Your task to perform on an android device: turn on location history Image 0: 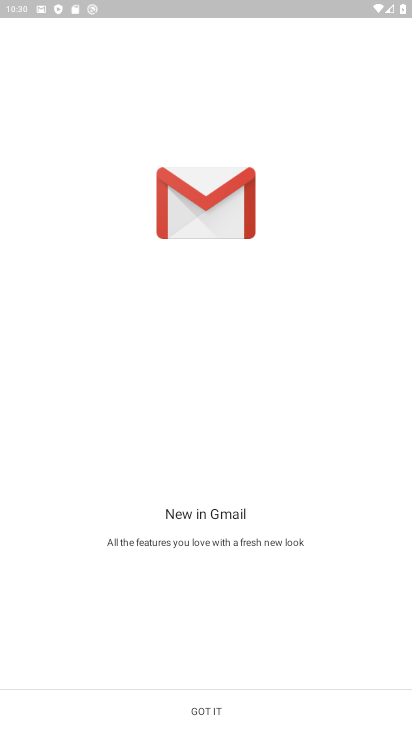
Step 0: press home button
Your task to perform on an android device: turn on location history Image 1: 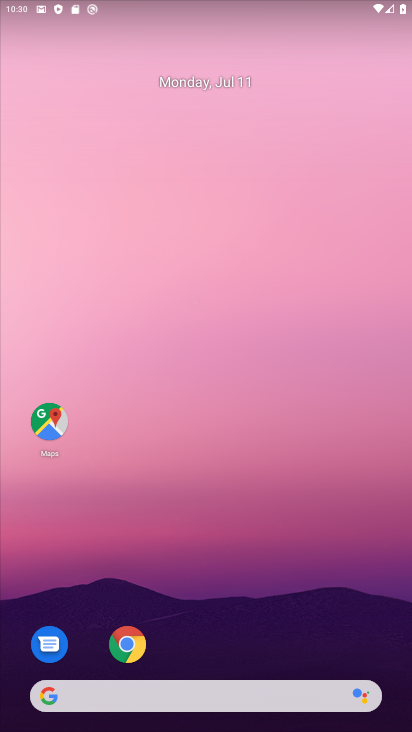
Step 1: drag from (303, 659) to (288, 44)
Your task to perform on an android device: turn on location history Image 2: 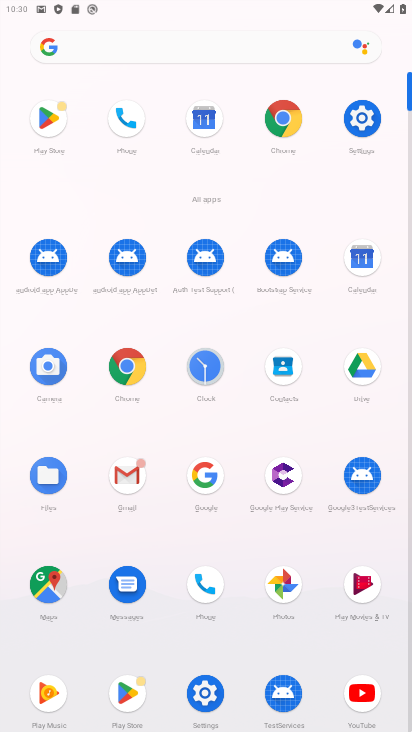
Step 2: click (353, 103)
Your task to perform on an android device: turn on location history Image 3: 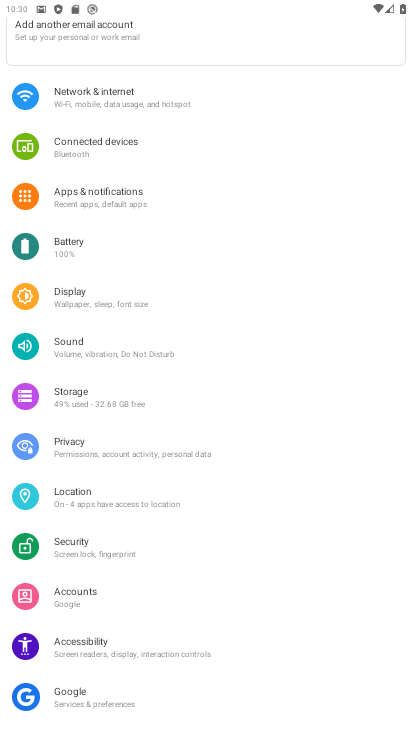
Step 3: click (107, 493)
Your task to perform on an android device: turn on location history Image 4: 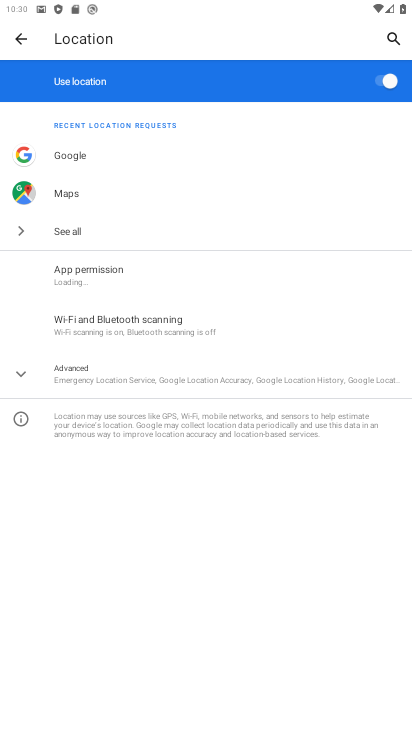
Step 4: click (177, 363)
Your task to perform on an android device: turn on location history Image 5: 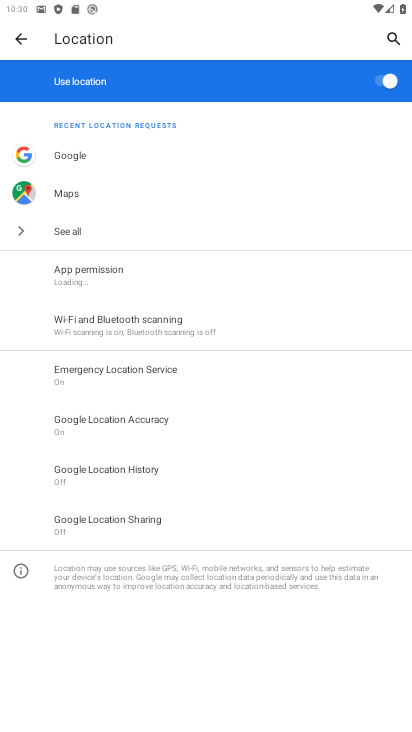
Step 5: click (174, 475)
Your task to perform on an android device: turn on location history Image 6: 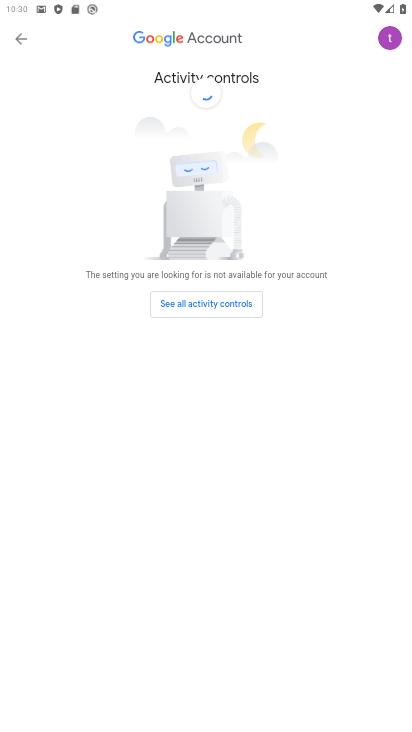
Step 6: click (210, 291)
Your task to perform on an android device: turn on location history Image 7: 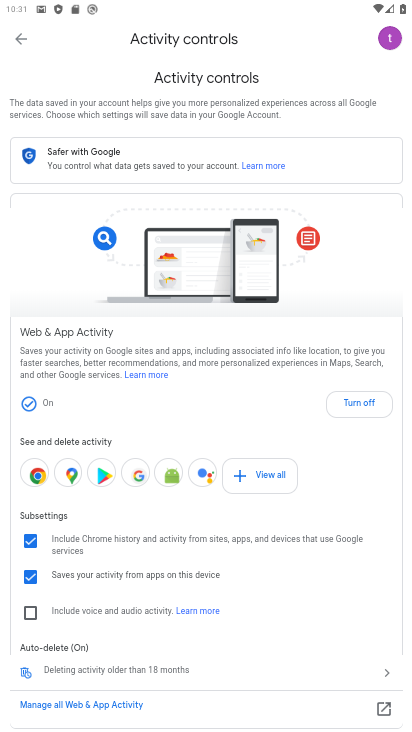
Step 7: click (33, 397)
Your task to perform on an android device: turn on location history Image 8: 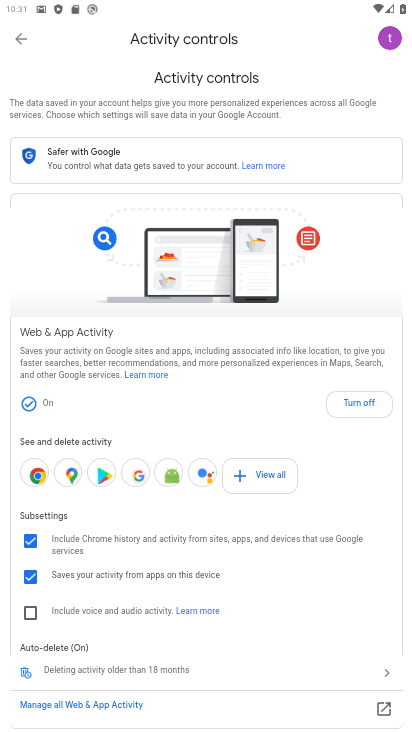
Step 8: click (33, 397)
Your task to perform on an android device: turn on location history Image 9: 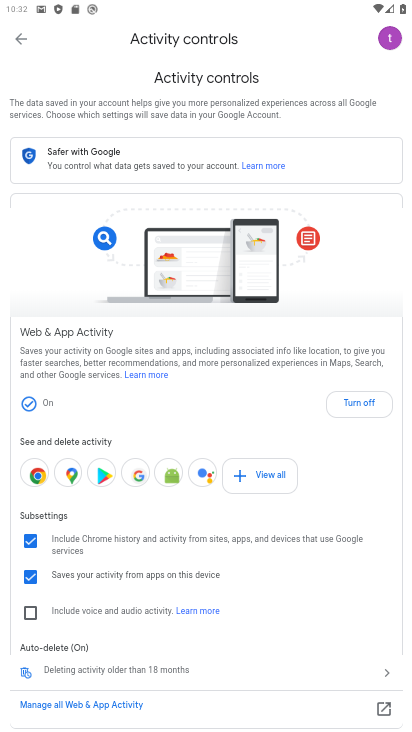
Step 9: click (39, 408)
Your task to perform on an android device: turn on location history Image 10: 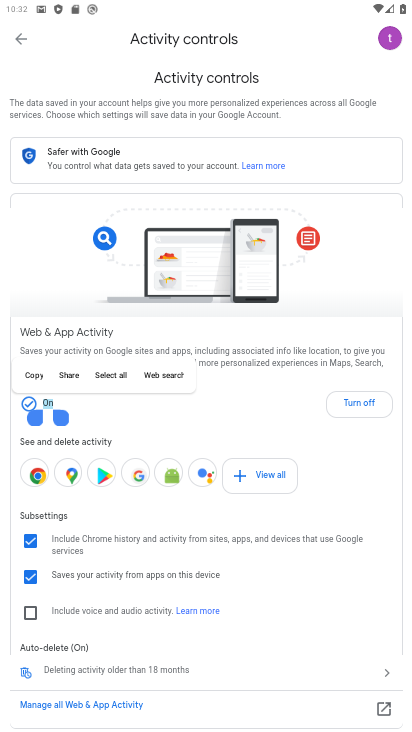
Step 10: click (19, 400)
Your task to perform on an android device: turn on location history Image 11: 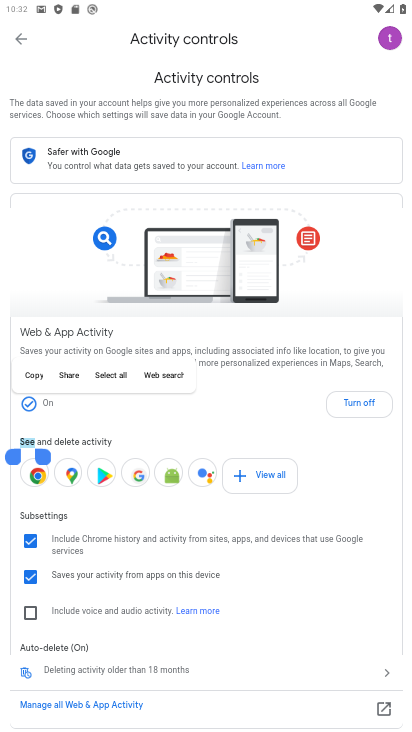
Step 11: task complete